Your task to perform on an android device: Open accessibility settings Image 0: 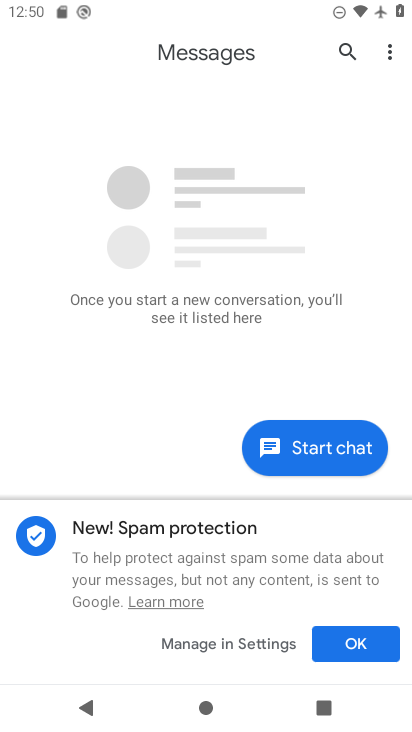
Step 0: press home button
Your task to perform on an android device: Open accessibility settings Image 1: 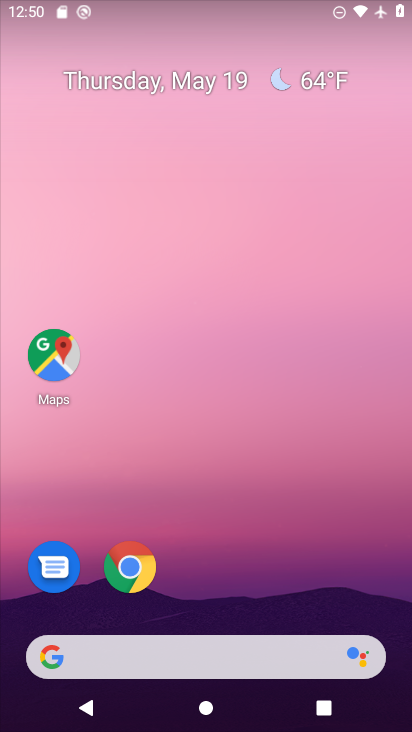
Step 1: drag from (316, 597) to (343, 234)
Your task to perform on an android device: Open accessibility settings Image 2: 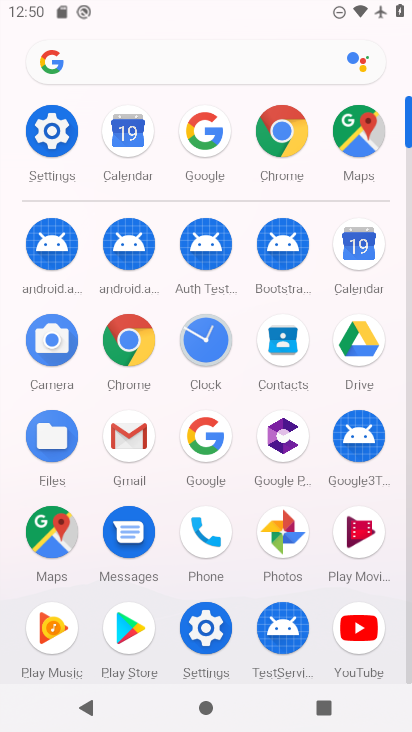
Step 2: click (43, 141)
Your task to perform on an android device: Open accessibility settings Image 3: 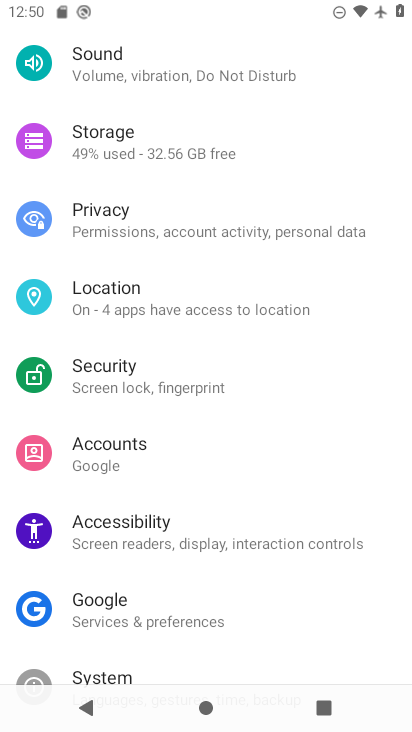
Step 3: click (180, 539)
Your task to perform on an android device: Open accessibility settings Image 4: 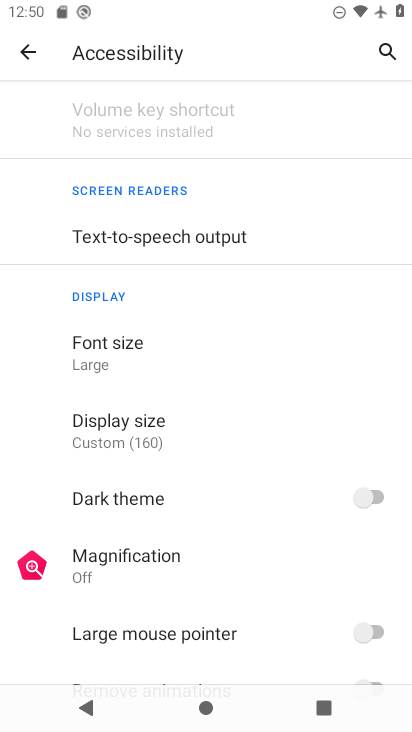
Step 4: task complete